Your task to perform on an android device: Show the shopping cart on bestbuy.com. Add macbook to the cart on bestbuy.com Image 0: 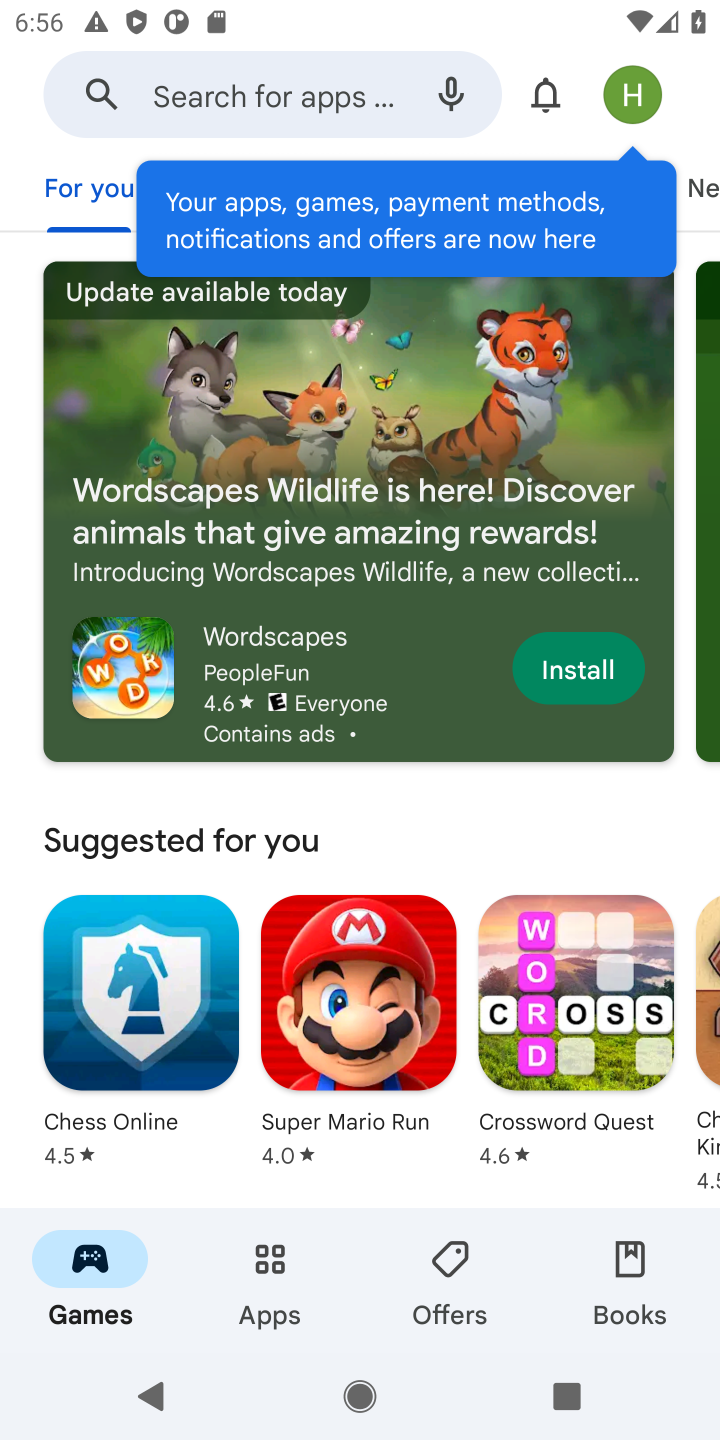
Step 0: press home button
Your task to perform on an android device: Show the shopping cart on bestbuy.com. Add macbook to the cart on bestbuy.com Image 1: 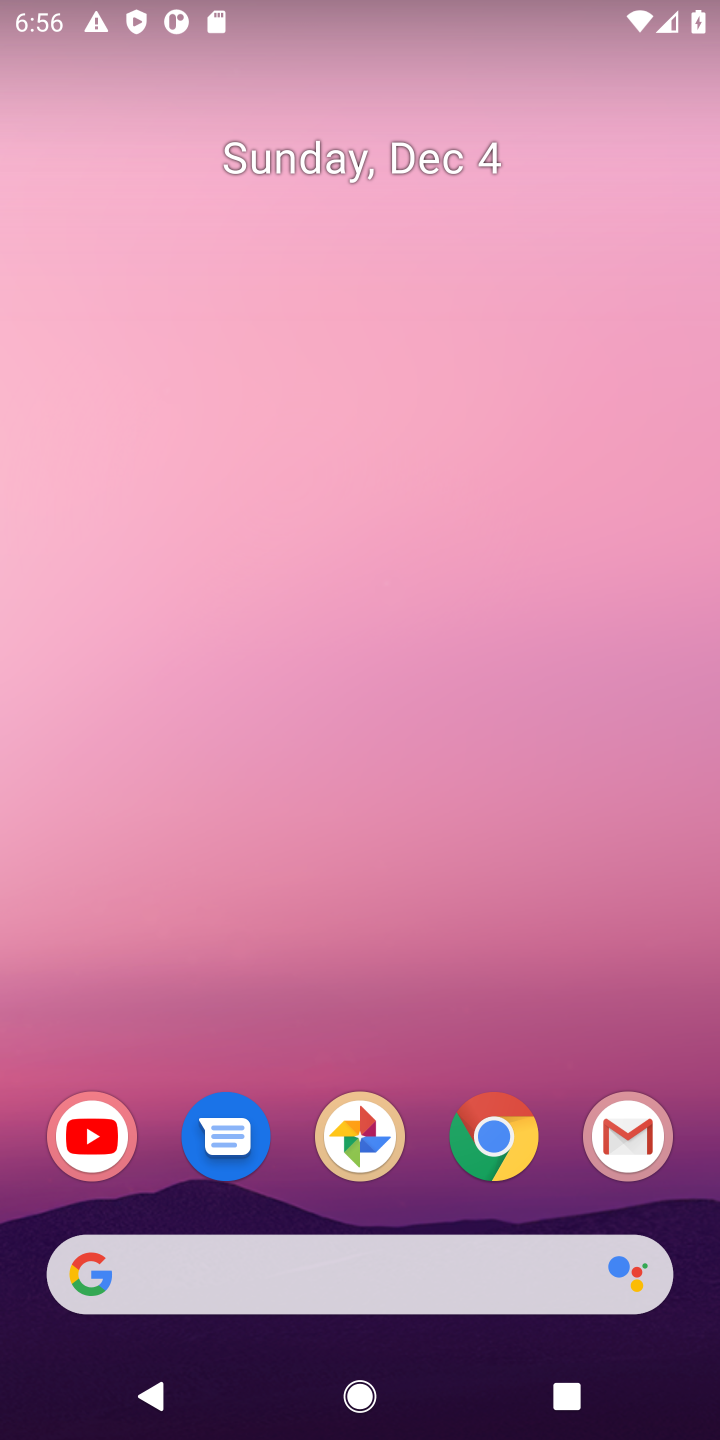
Step 1: click (495, 1131)
Your task to perform on an android device: Show the shopping cart on bestbuy.com. Add macbook to the cart on bestbuy.com Image 2: 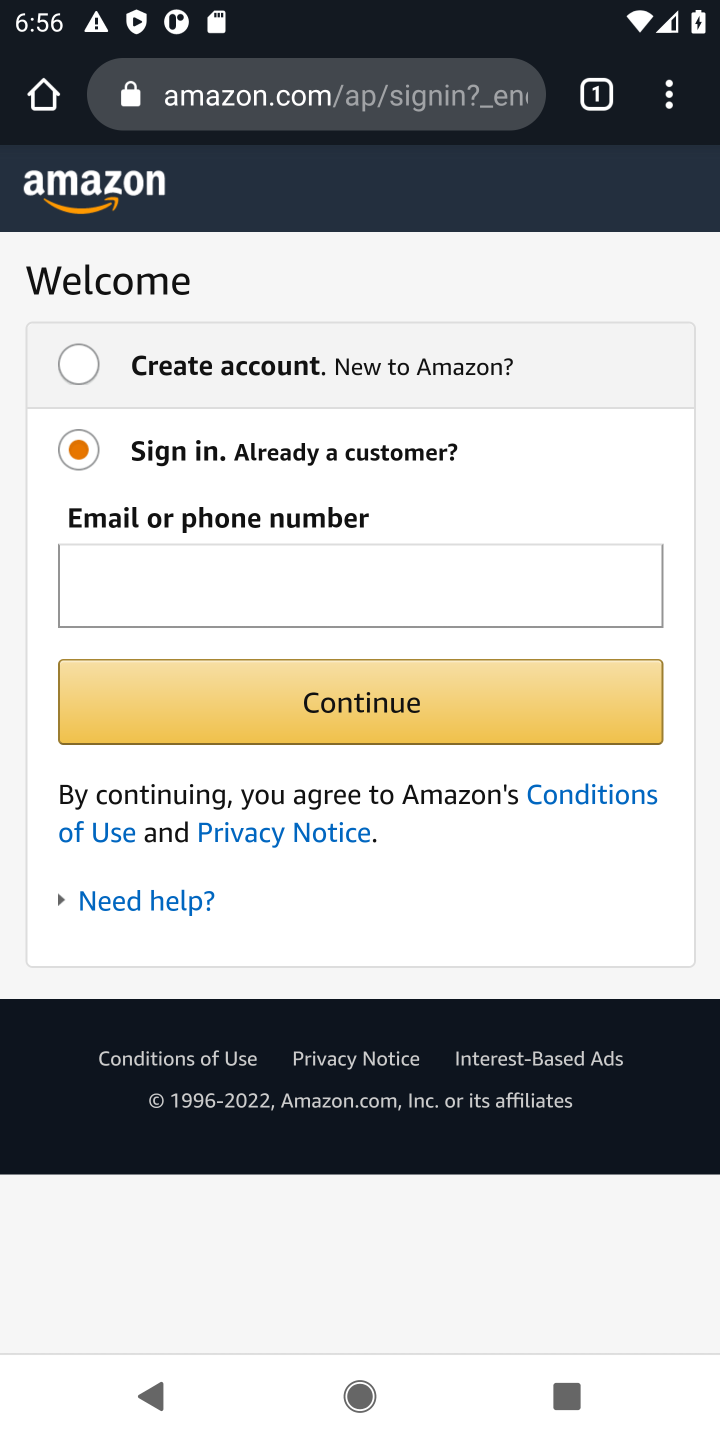
Step 2: click (301, 109)
Your task to perform on an android device: Show the shopping cart on bestbuy.com. Add macbook to the cart on bestbuy.com Image 3: 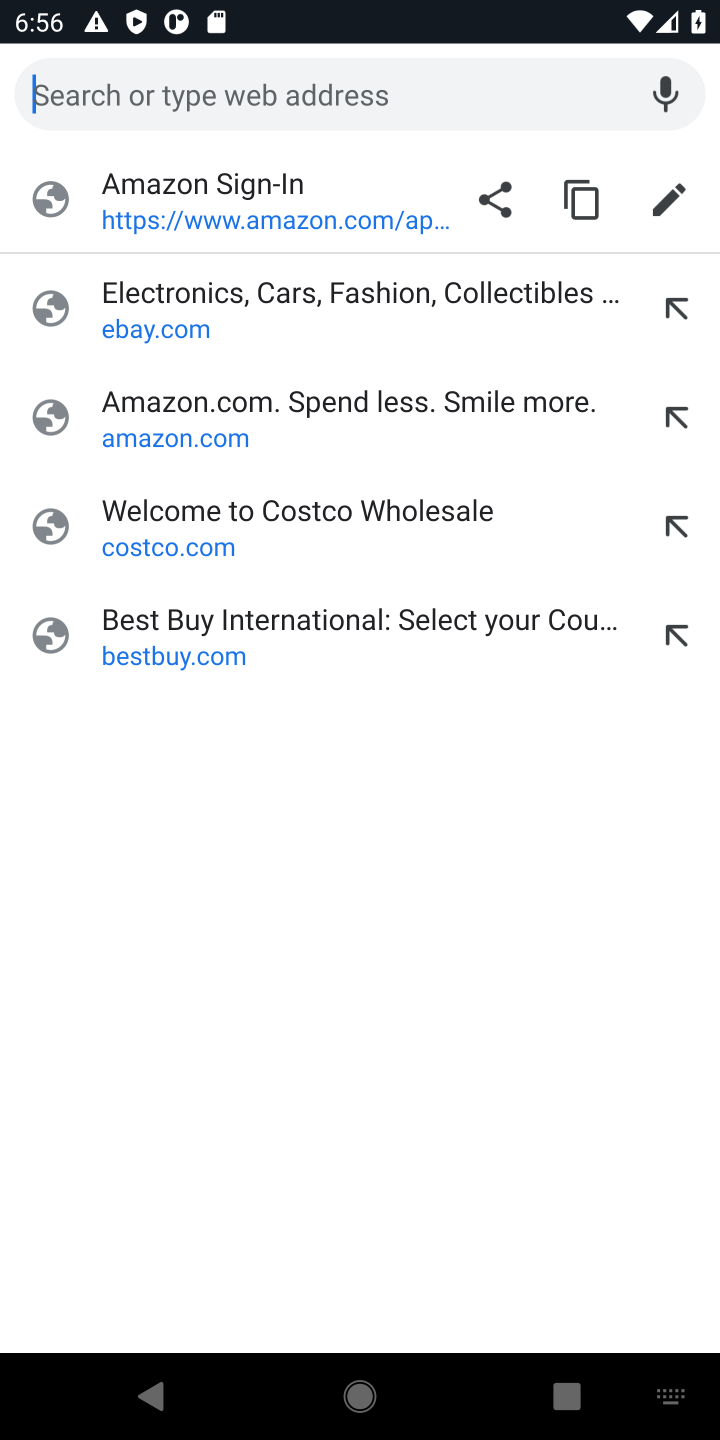
Step 3: click (154, 633)
Your task to perform on an android device: Show the shopping cart on bestbuy.com. Add macbook to the cart on bestbuy.com Image 4: 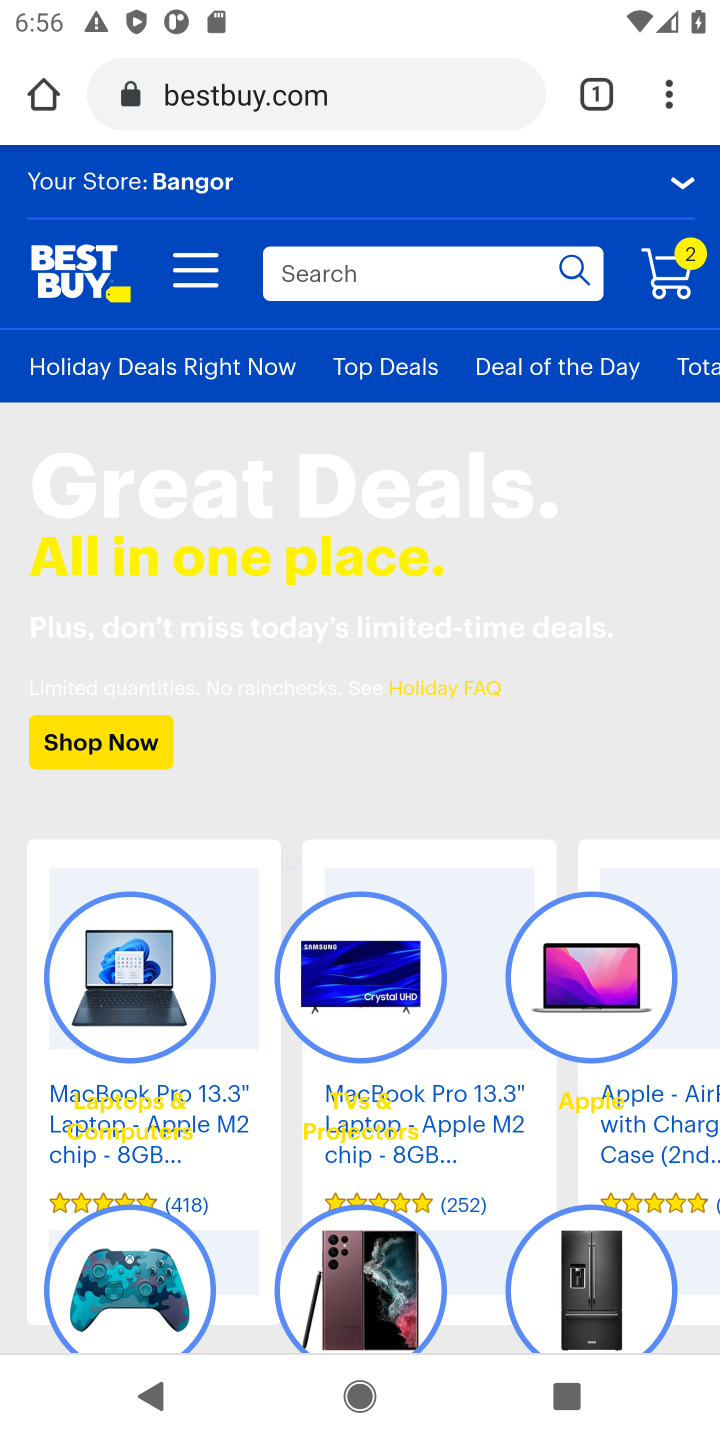
Step 4: click (664, 278)
Your task to perform on an android device: Show the shopping cart on bestbuy.com. Add macbook to the cart on bestbuy.com Image 5: 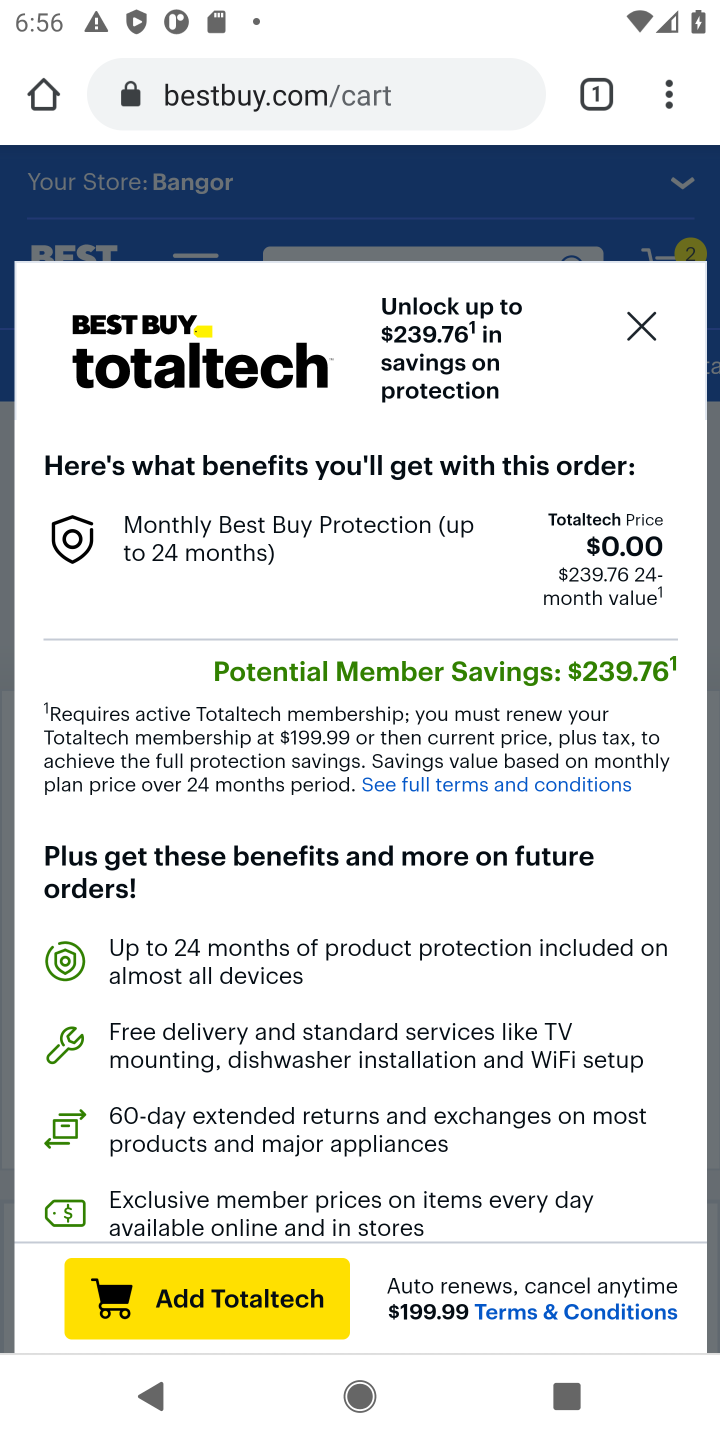
Step 5: click (652, 329)
Your task to perform on an android device: Show the shopping cart on bestbuy.com. Add macbook to the cart on bestbuy.com Image 6: 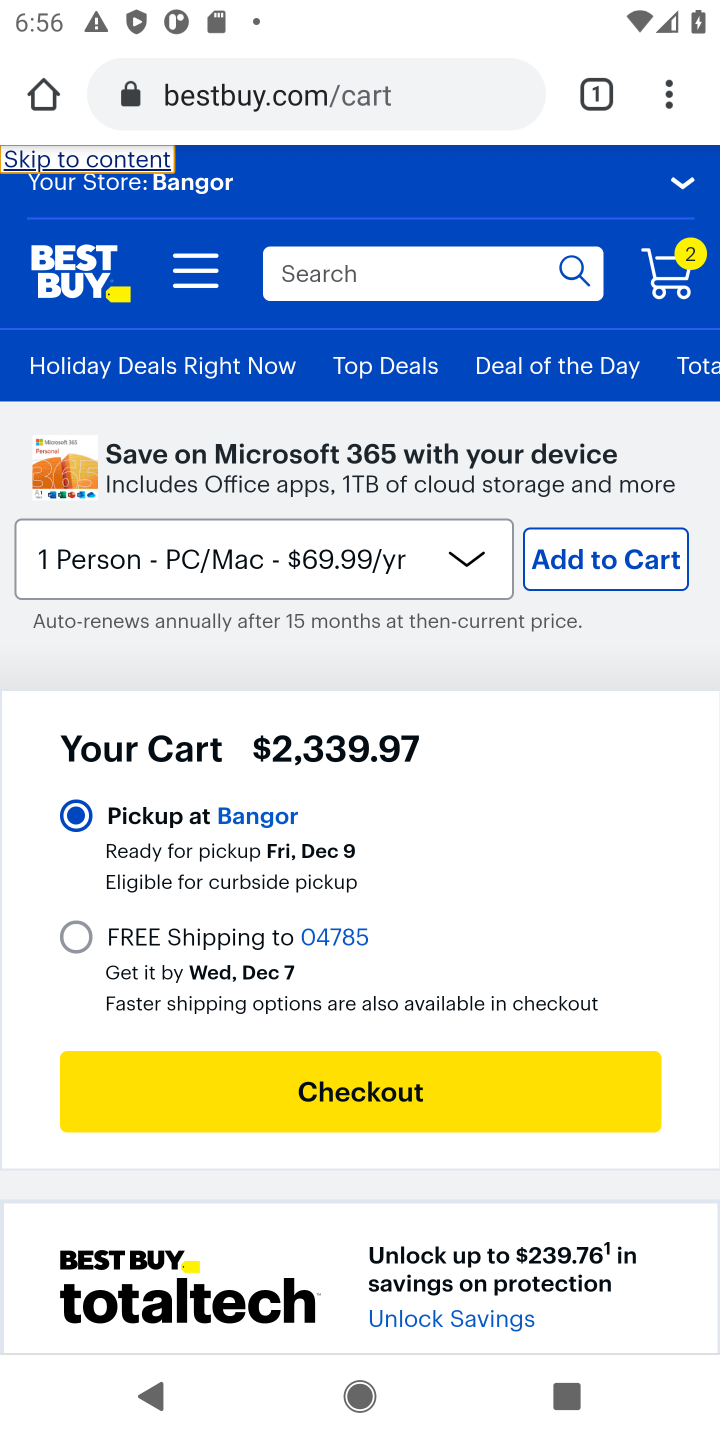
Step 6: click (315, 284)
Your task to perform on an android device: Show the shopping cart on bestbuy.com. Add macbook to the cart on bestbuy.com Image 7: 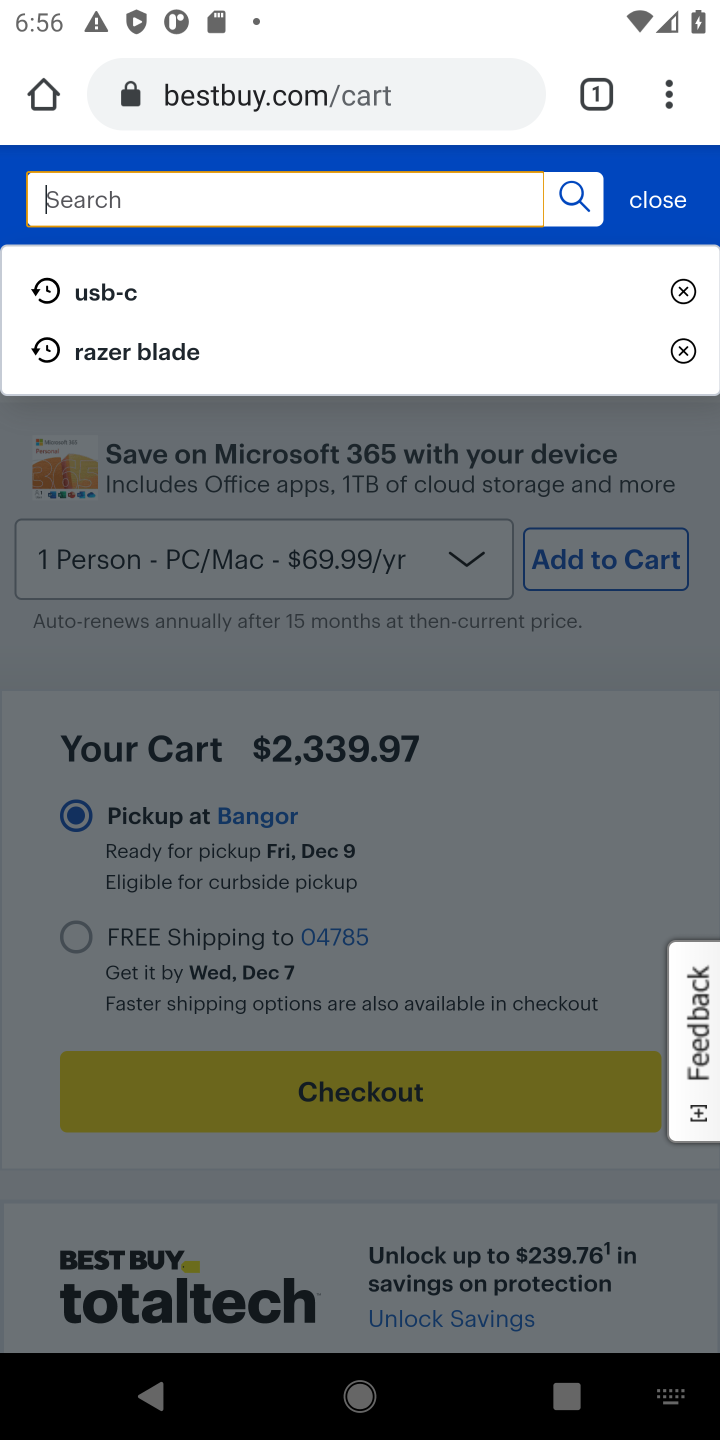
Step 7: type "macbook "
Your task to perform on an android device: Show the shopping cart on bestbuy.com. Add macbook to the cart on bestbuy.com Image 8: 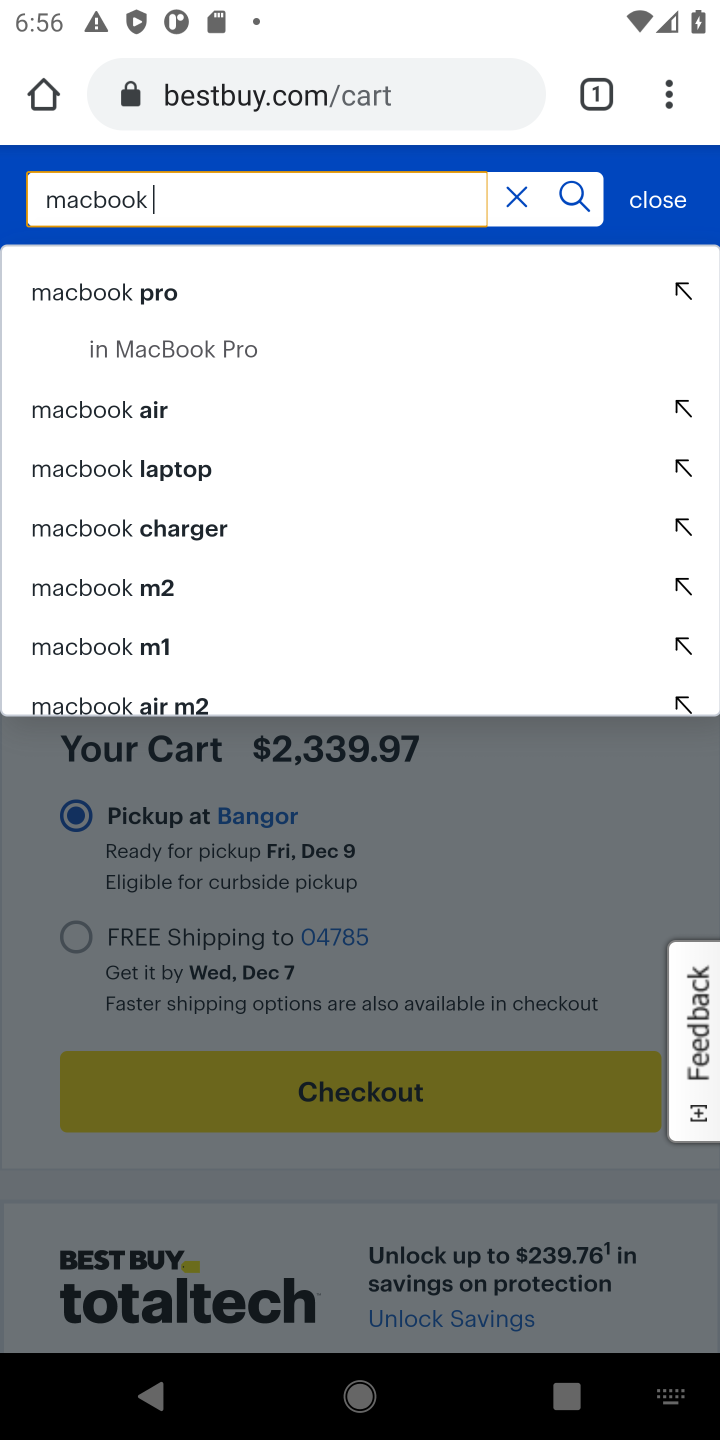
Step 8: click (562, 207)
Your task to perform on an android device: Show the shopping cart on bestbuy.com. Add macbook to the cart on bestbuy.com Image 9: 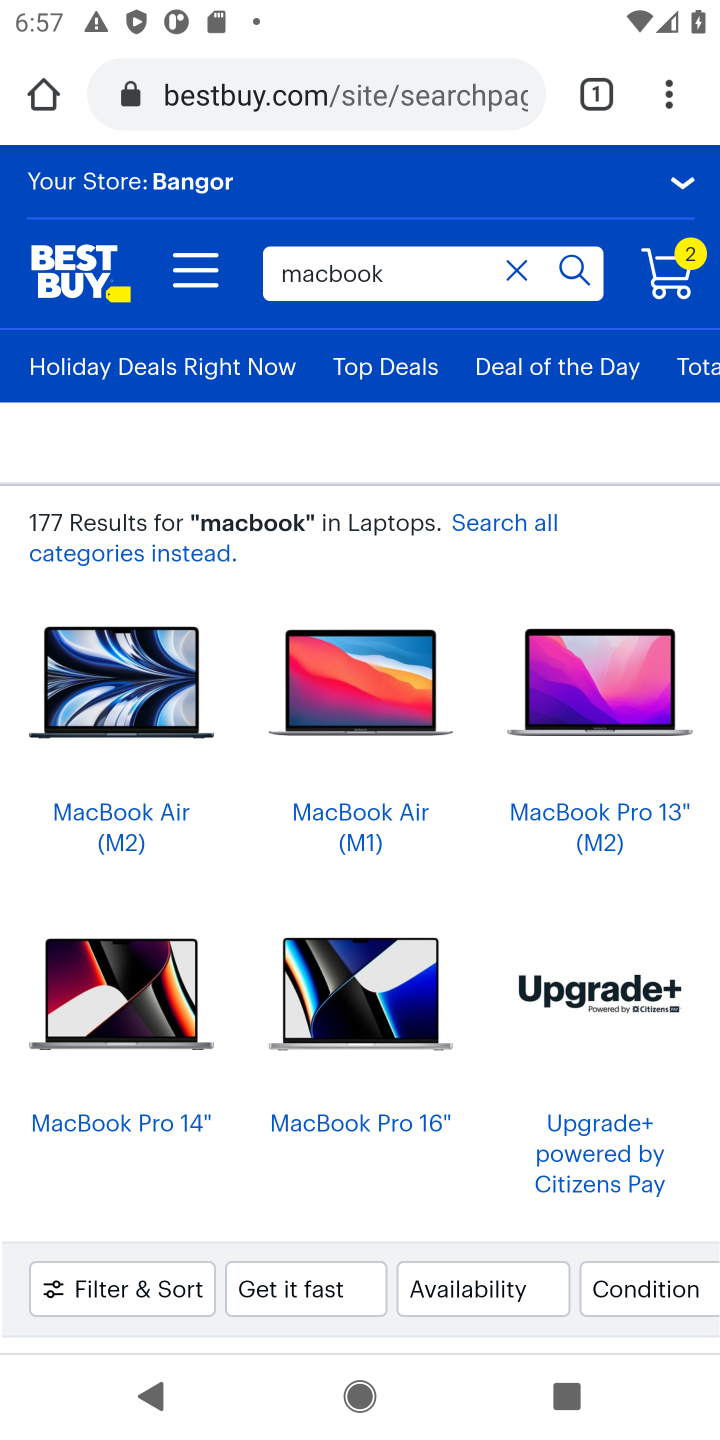
Step 9: drag from (466, 847) to (505, 248)
Your task to perform on an android device: Show the shopping cart on bestbuy.com. Add macbook to the cart on bestbuy.com Image 10: 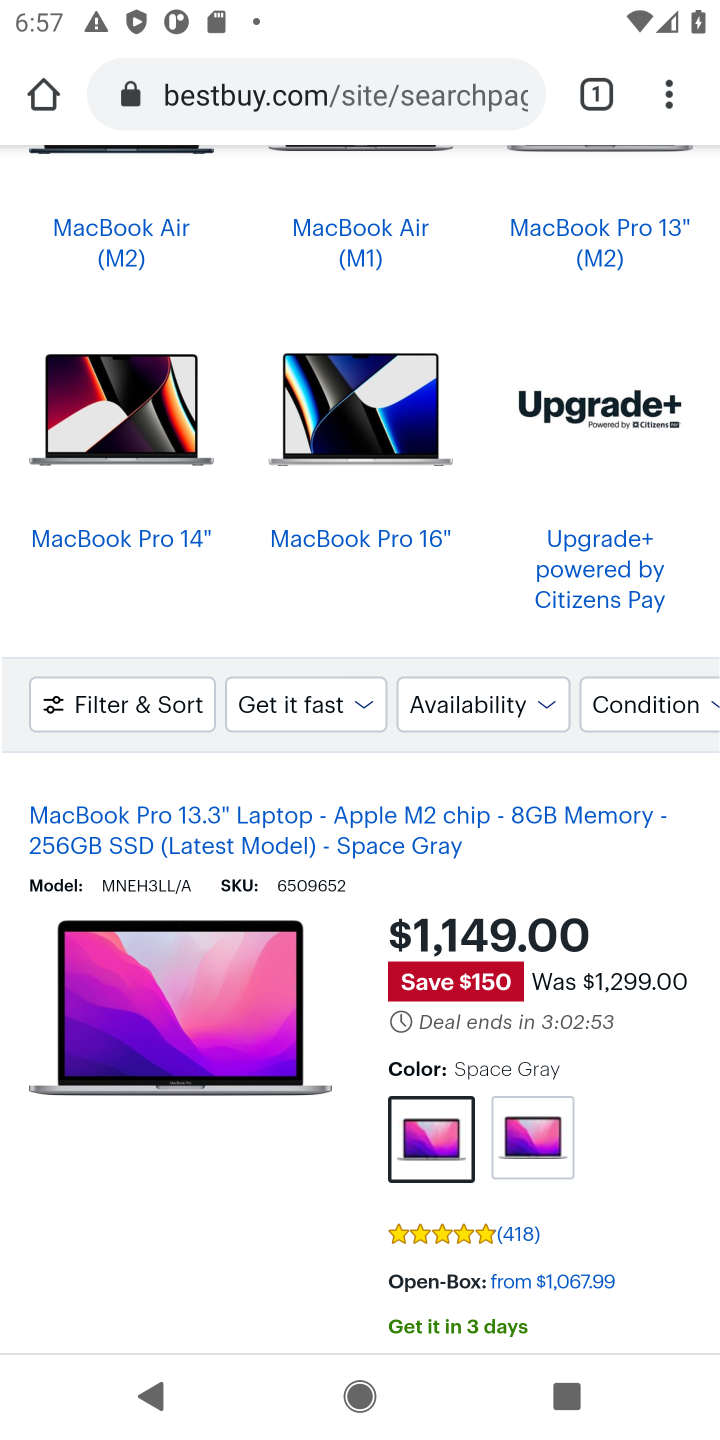
Step 10: drag from (366, 958) to (391, 618)
Your task to perform on an android device: Show the shopping cart on bestbuy.com. Add macbook to the cart on bestbuy.com Image 11: 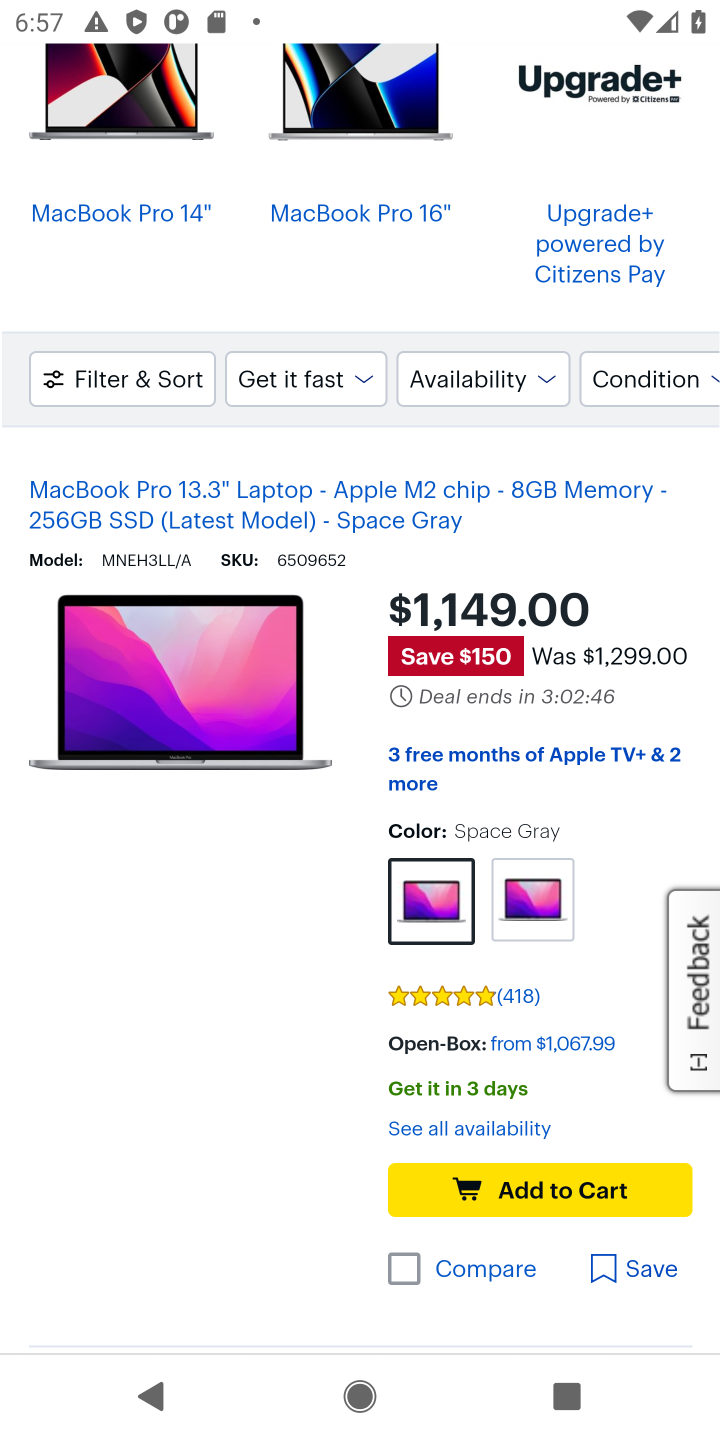
Step 11: click (529, 1189)
Your task to perform on an android device: Show the shopping cart on bestbuy.com. Add macbook to the cart on bestbuy.com Image 12: 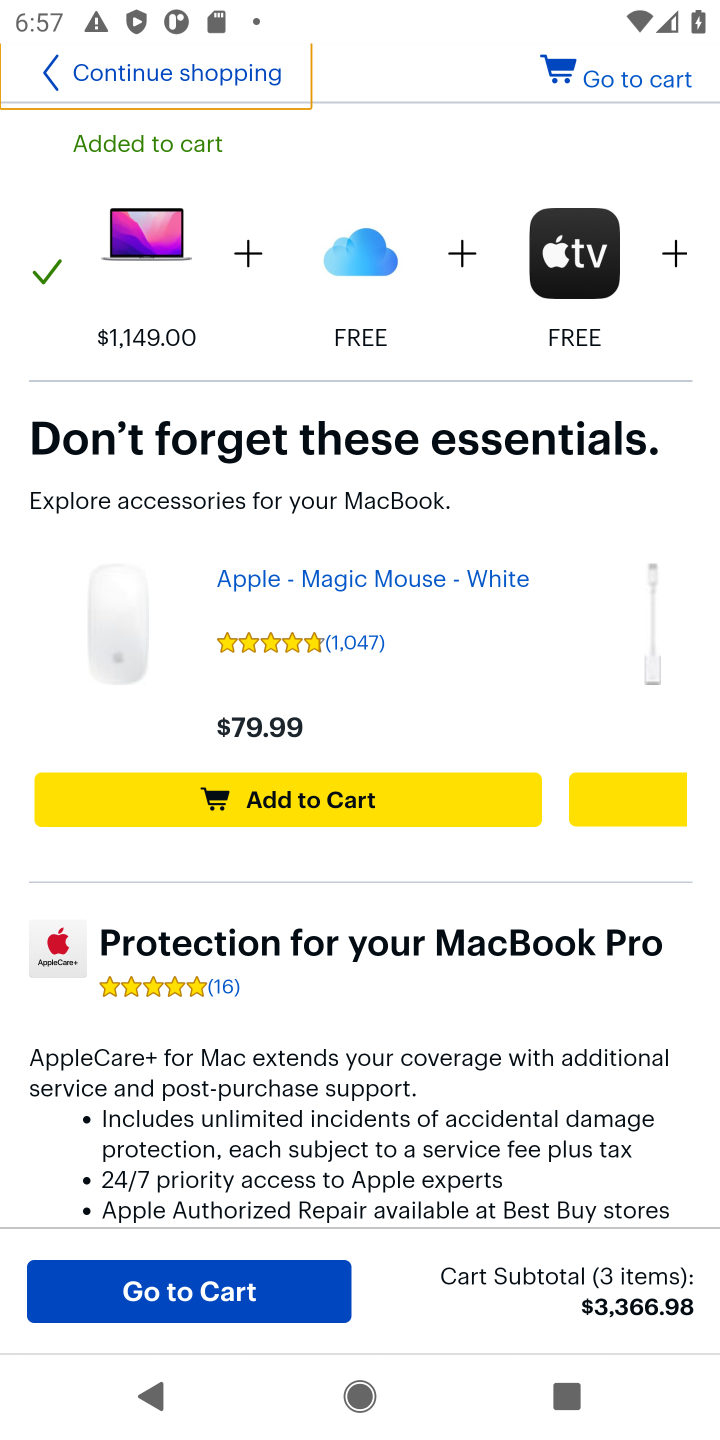
Step 12: task complete